Your task to perform on an android device: change keyboard looks Image 0: 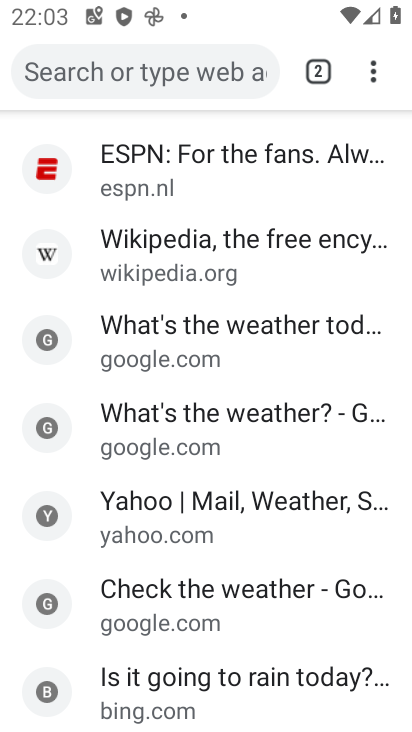
Step 0: task complete